Your task to perform on an android device: change notification settings in the gmail app Image 0: 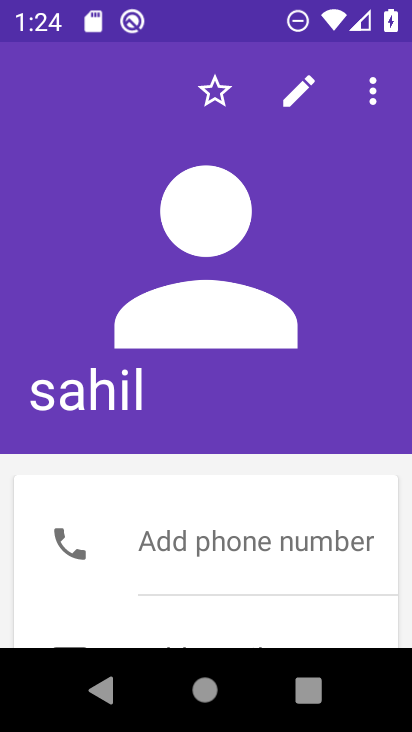
Step 0: press home button
Your task to perform on an android device: change notification settings in the gmail app Image 1: 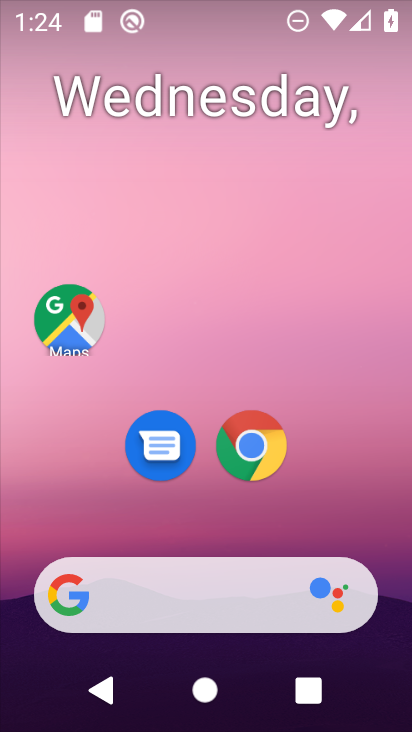
Step 1: drag from (387, 629) to (271, 90)
Your task to perform on an android device: change notification settings in the gmail app Image 2: 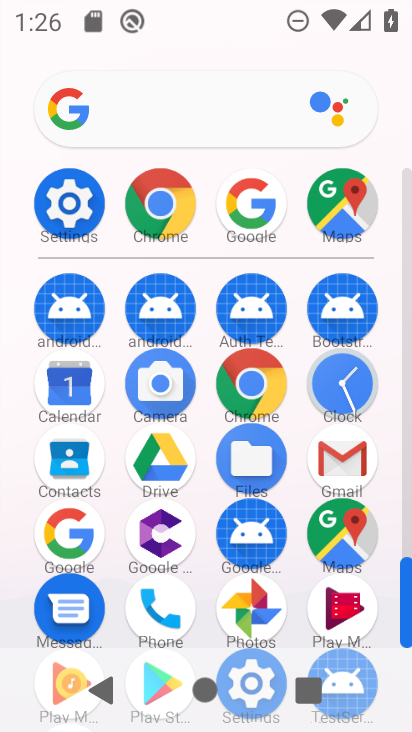
Step 2: click (356, 451)
Your task to perform on an android device: change notification settings in the gmail app Image 3: 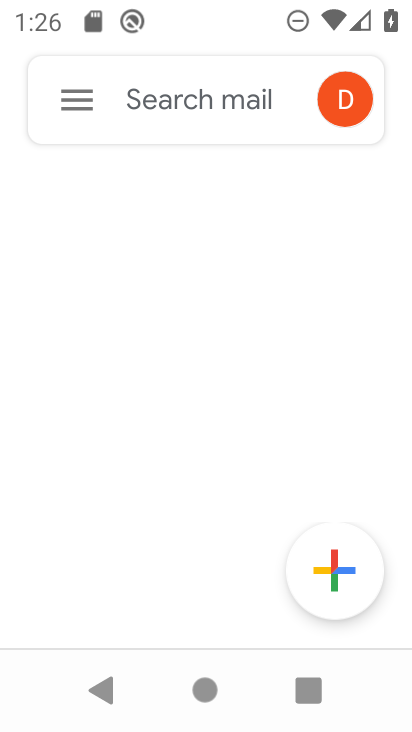
Step 3: click (62, 98)
Your task to perform on an android device: change notification settings in the gmail app Image 4: 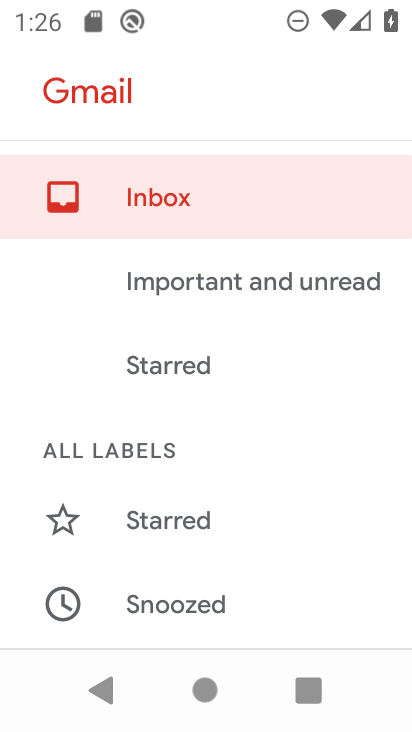
Step 4: drag from (145, 610) to (158, 124)
Your task to perform on an android device: change notification settings in the gmail app Image 5: 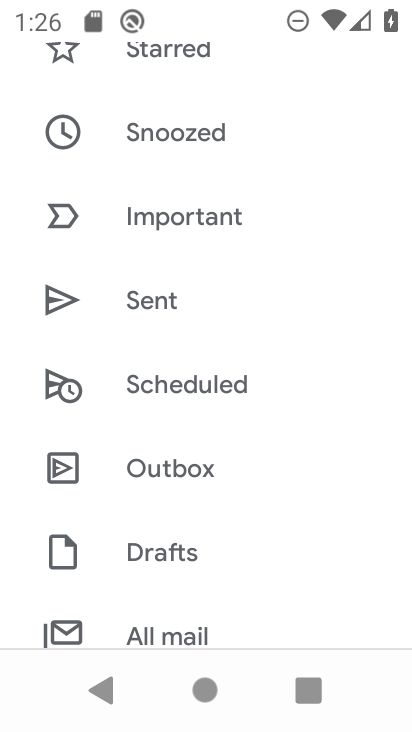
Step 5: drag from (156, 606) to (212, 56)
Your task to perform on an android device: change notification settings in the gmail app Image 6: 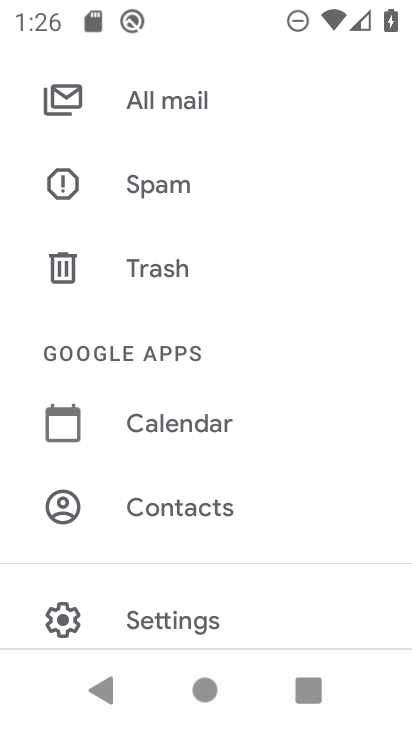
Step 6: click (196, 601)
Your task to perform on an android device: change notification settings in the gmail app Image 7: 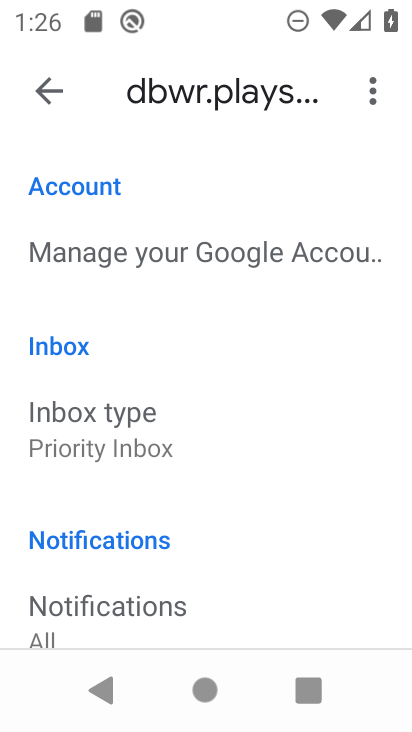
Step 7: click (163, 620)
Your task to perform on an android device: change notification settings in the gmail app Image 8: 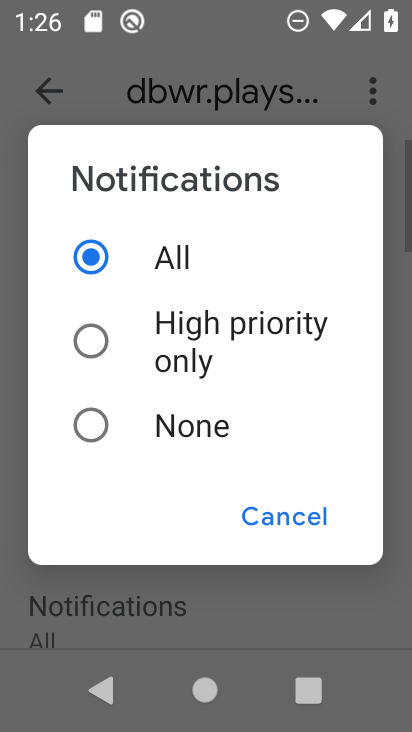
Step 8: click (109, 427)
Your task to perform on an android device: change notification settings in the gmail app Image 9: 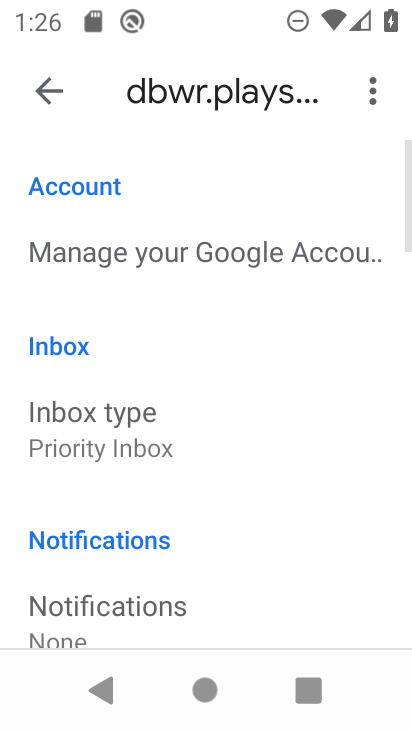
Step 9: task complete